Your task to perform on an android device: Open calendar and show me the first week of next month Image 0: 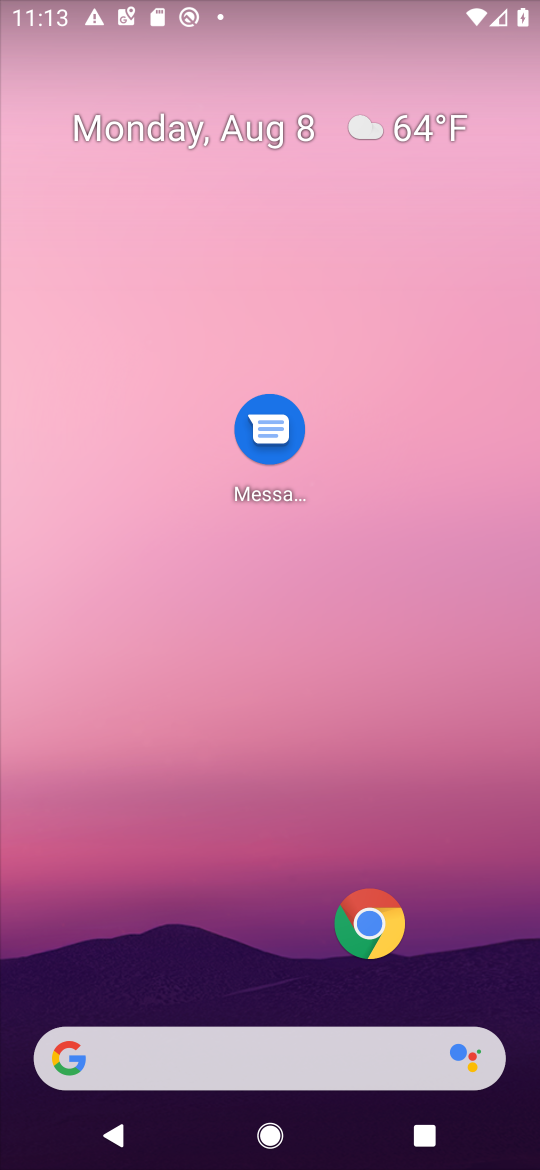
Step 0: drag from (75, 1057) to (382, 243)
Your task to perform on an android device: Open calendar and show me the first week of next month Image 1: 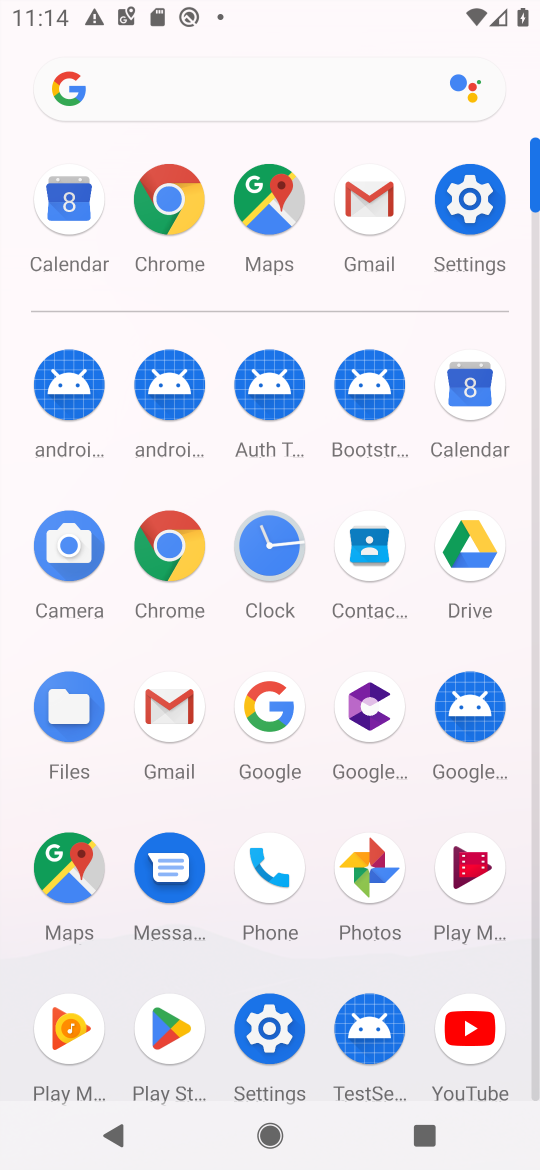
Step 1: click (458, 391)
Your task to perform on an android device: Open calendar and show me the first week of next month Image 2: 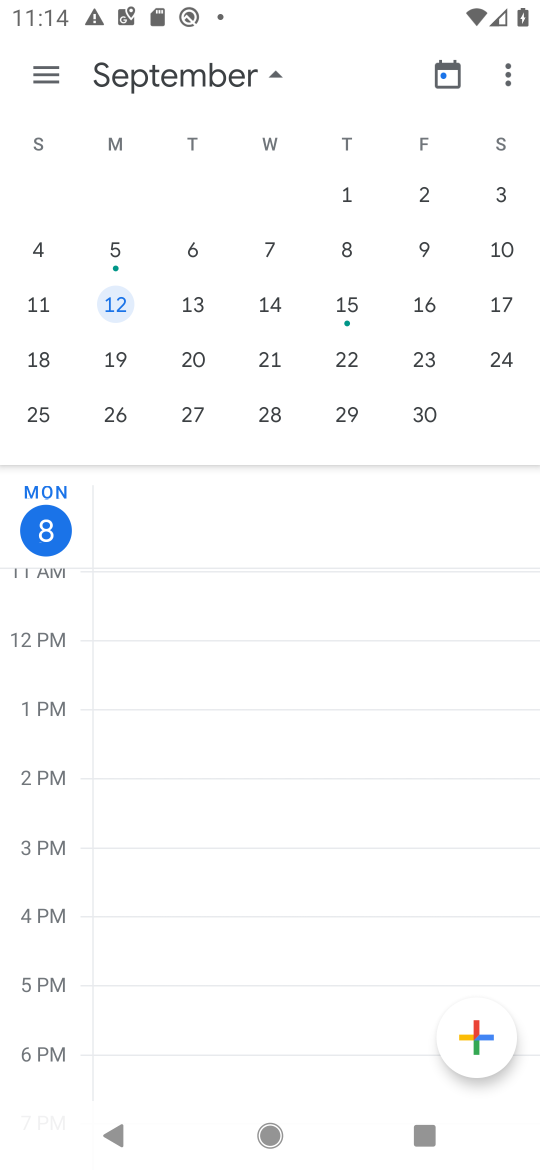
Step 2: task complete